Your task to perform on an android device: Toggle the flashlight Image 0: 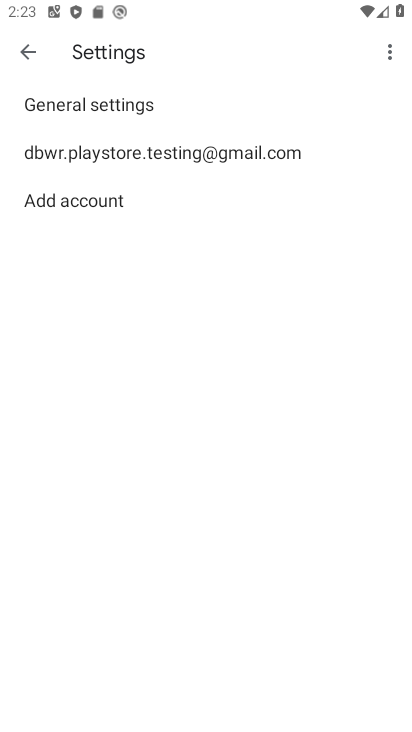
Step 0: press home button
Your task to perform on an android device: Toggle the flashlight Image 1: 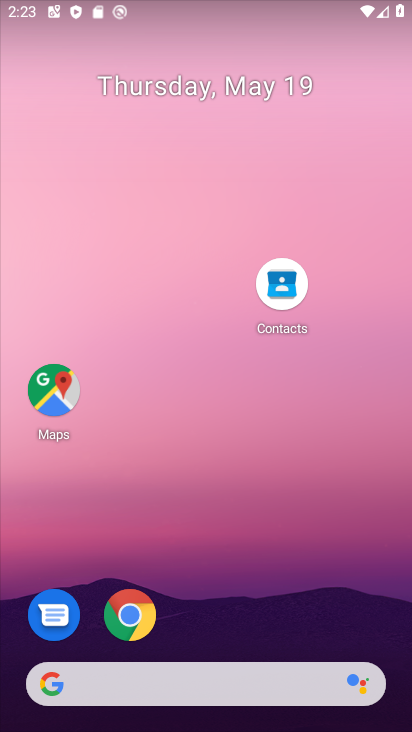
Step 1: task complete